Your task to perform on an android device: When is my next meeting? Image 0: 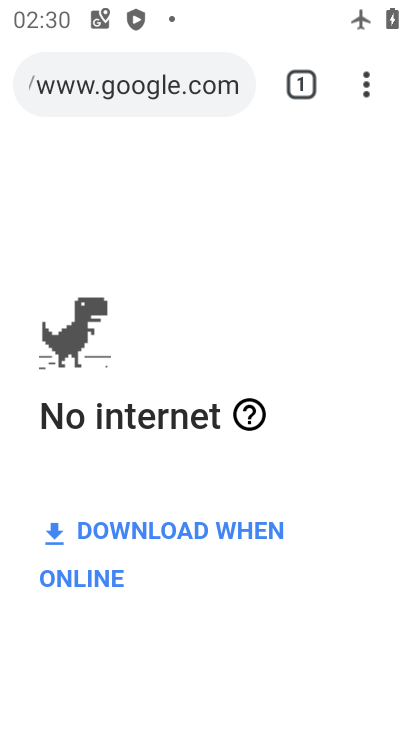
Step 0: press home button
Your task to perform on an android device: When is my next meeting? Image 1: 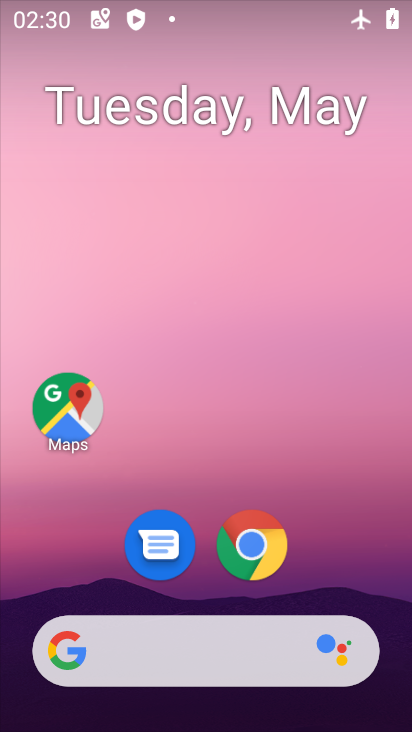
Step 1: drag from (387, 593) to (342, 40)
Your task to perform on an android device: When is my next meeting? Image 2: 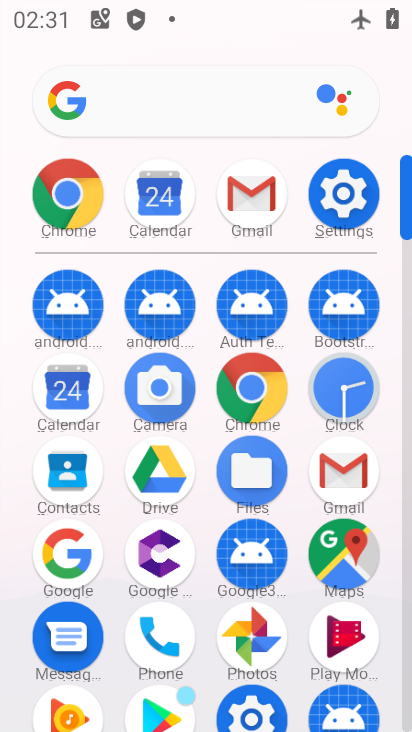
Step 2: click (406, 711)
Your task to perform on an android device: When is my next meeting? Image 3: 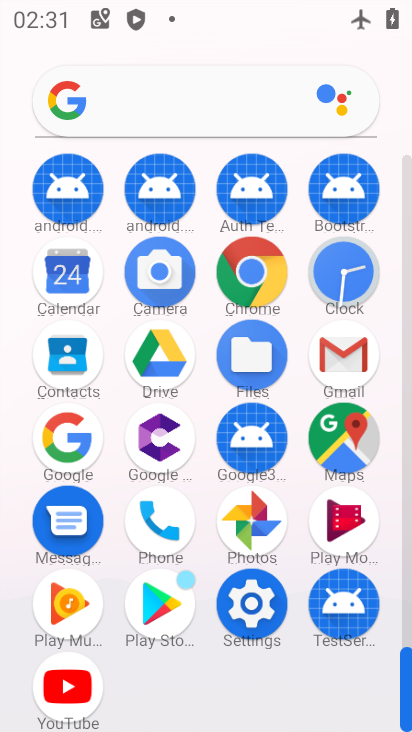
Step 3: click (62, 270)
Your task to perform on an android device: When is my next meeting? Image 4: 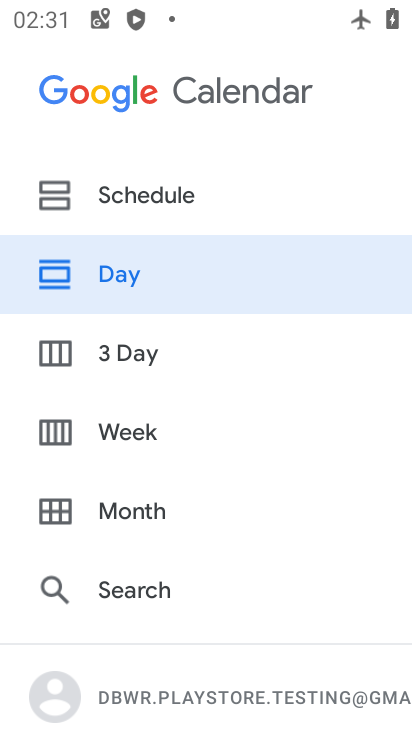
Step 4: click (145, 201)
Your task to perform on an android device: When is my next meeting? Image 5: 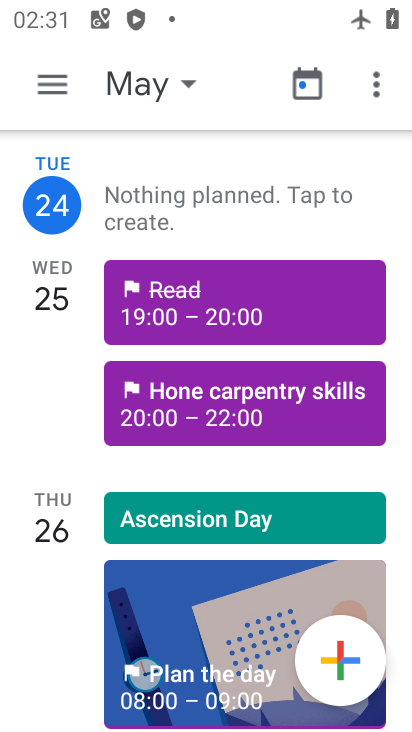
Step 5: task complete